Your task to perform on an android device: Find coffee shops on Maps Image 0: 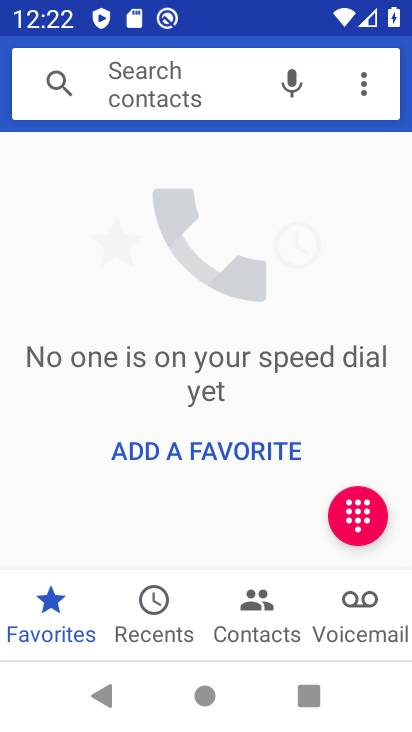
Step 0: task complete